Your task to perform on an android device: Open eBay Image 0: 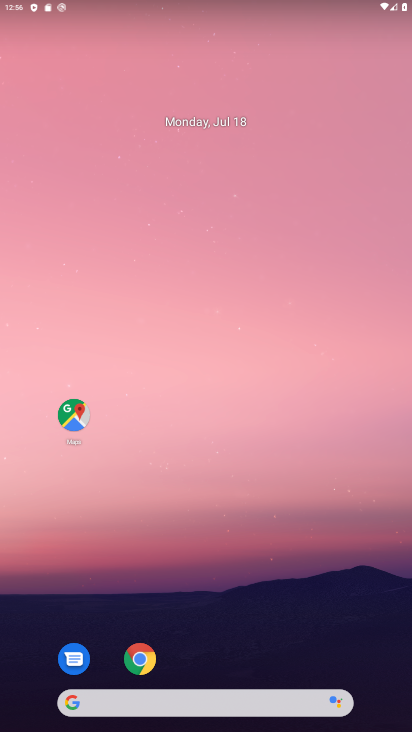
Step 0: drag from (241, 641) to (242, 94)
Your task to perform on an android device: Open eBay Image 1: 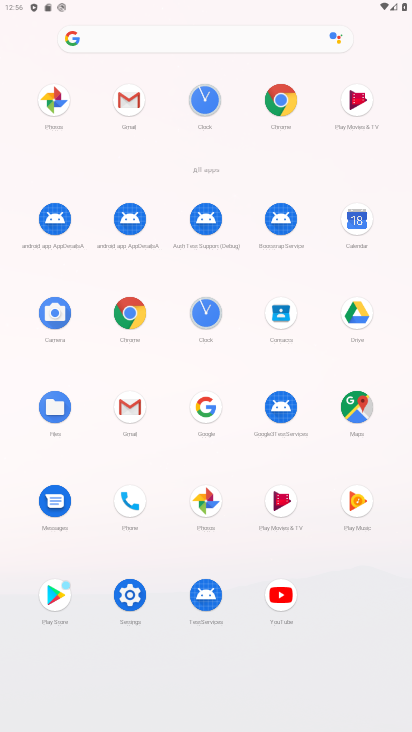
Step 1: click (132, 314)
Your task to perform on an android device: Open eBay Image 2: 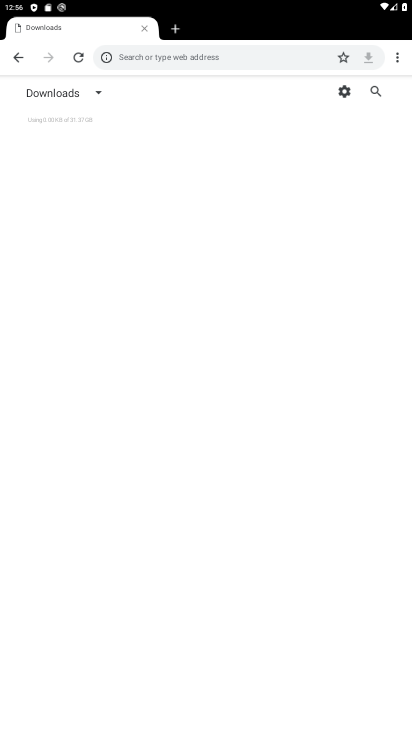
Step 2: click (229, 54)
Your task to perform on an android device: Open eBay Image 3: 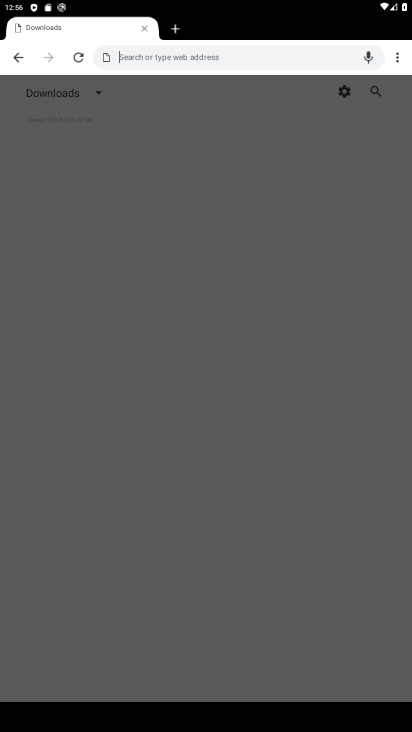
Step 3: type "ebay"
Your task to perform on an android device: Open eBay Image 4: 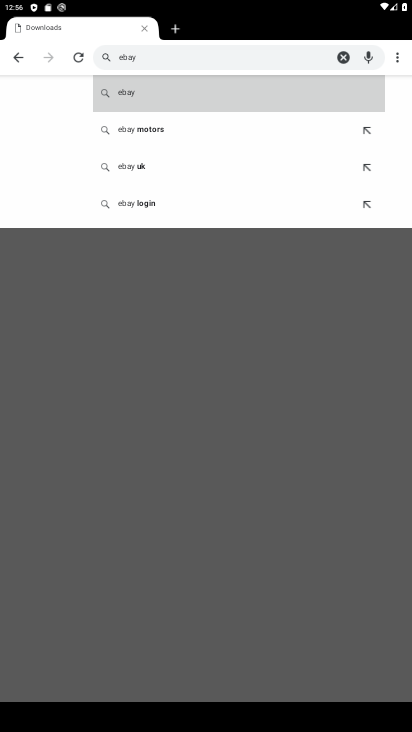
Step 4: click (123, 88)
Your task to perform on an android device: Open eBay Image 5: 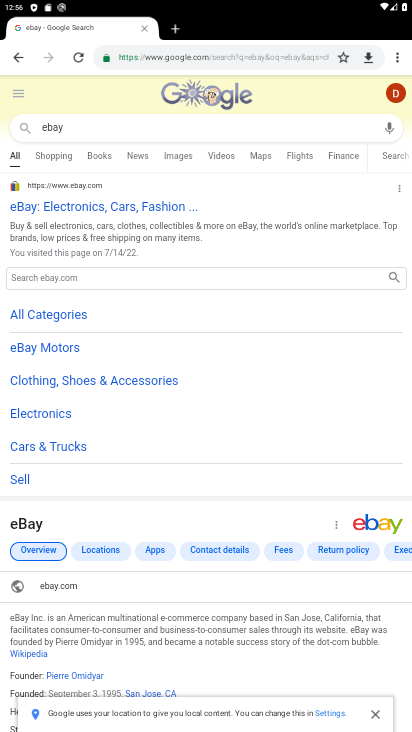
Step 5: click (58, 206)
Your task to perform on an android device: Open eBay Image 6: 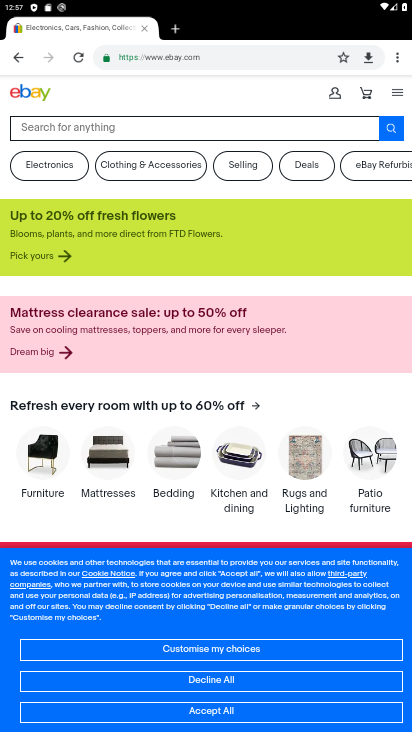
Step 6: task complete